Your task to perform on an android device: Go to network settings Image 0: 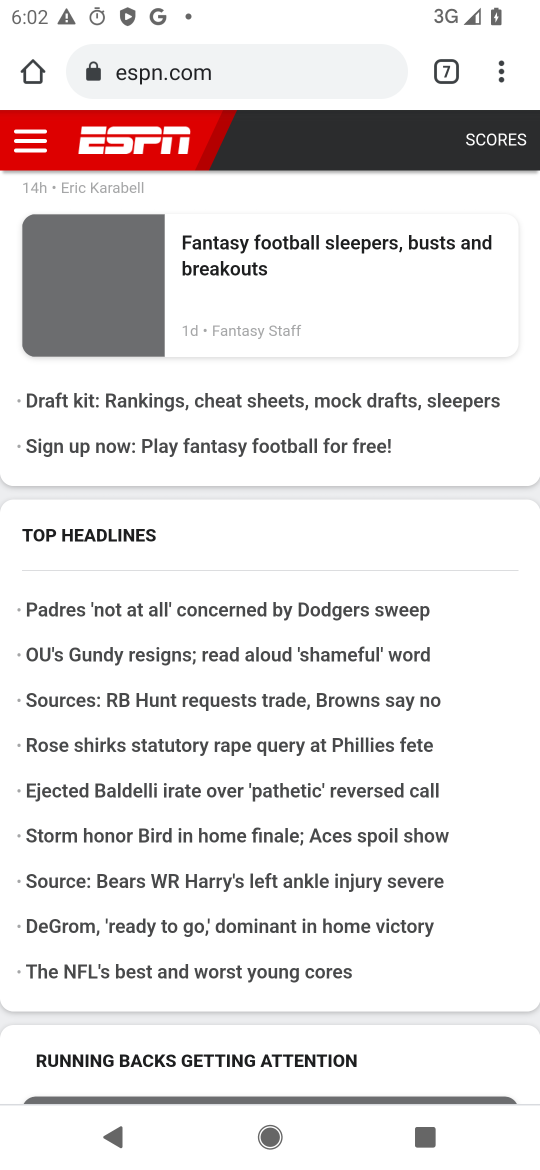
Step 0: press home button
Your task to perform on an android device: Go to network settings Image 1: 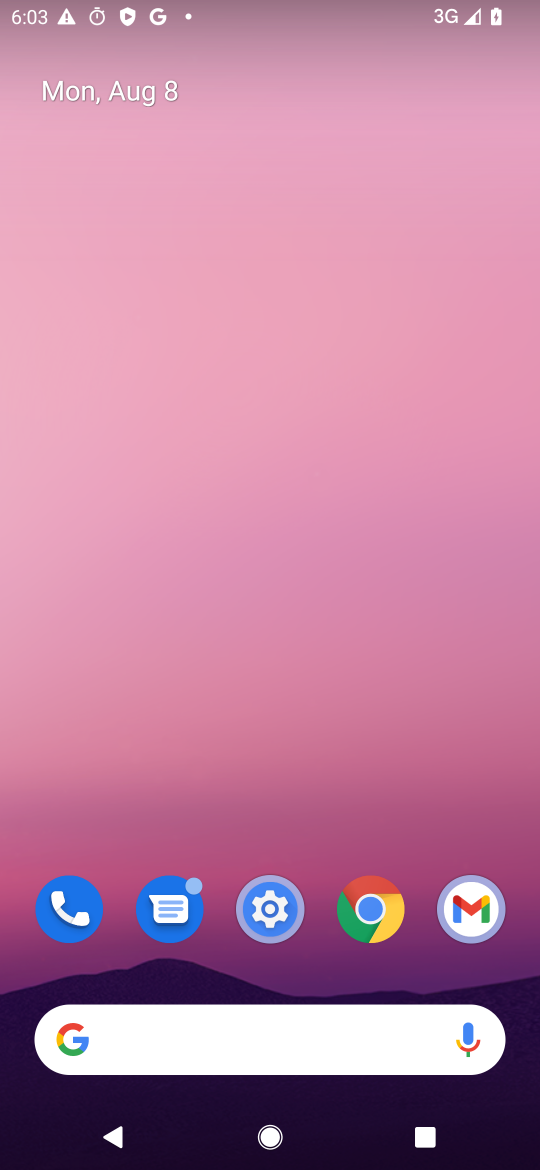
Step 1: click (263, 903)
Your task to perform on an android device: Go to network settings Image 2: 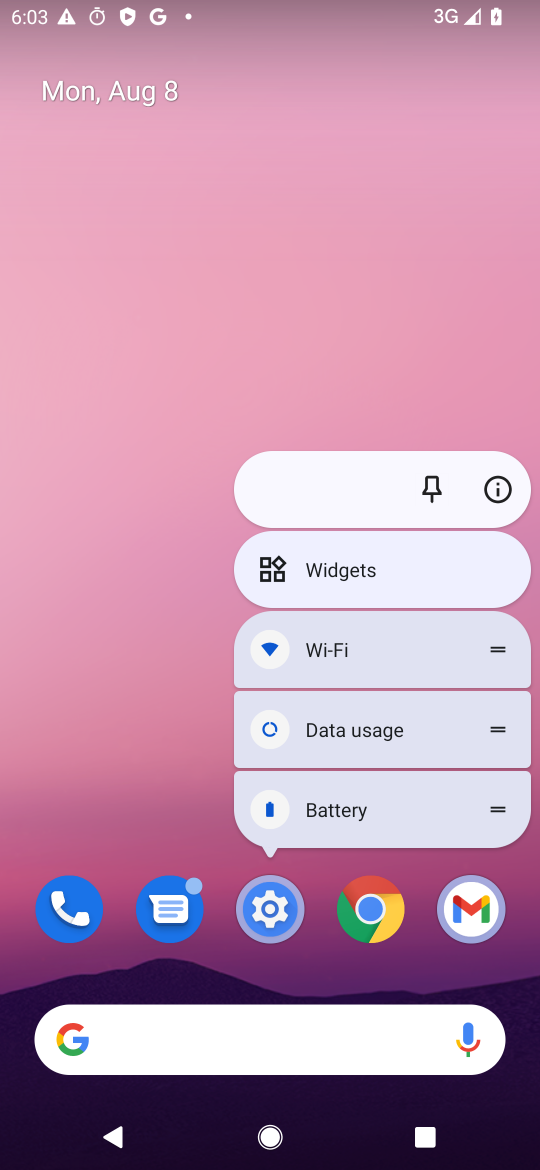
Step 2: click (263, 904)
Your task to perform on an android device: Go to network settings Image 3: 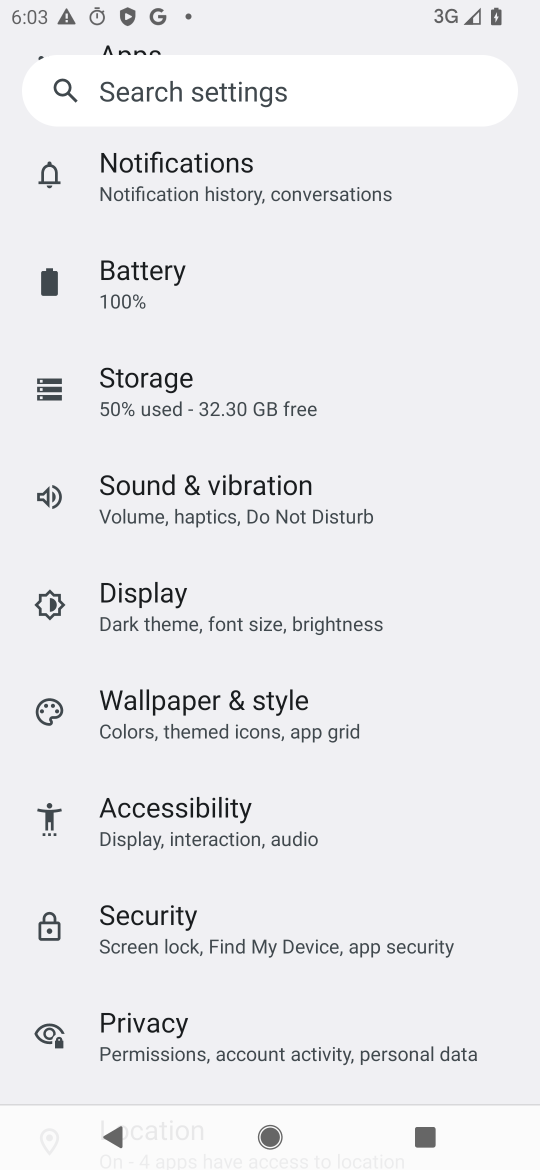
Step 3: drag from (337, 336) to (370, 876)
Your task to perform on an android device: Go to network settings Image 4: 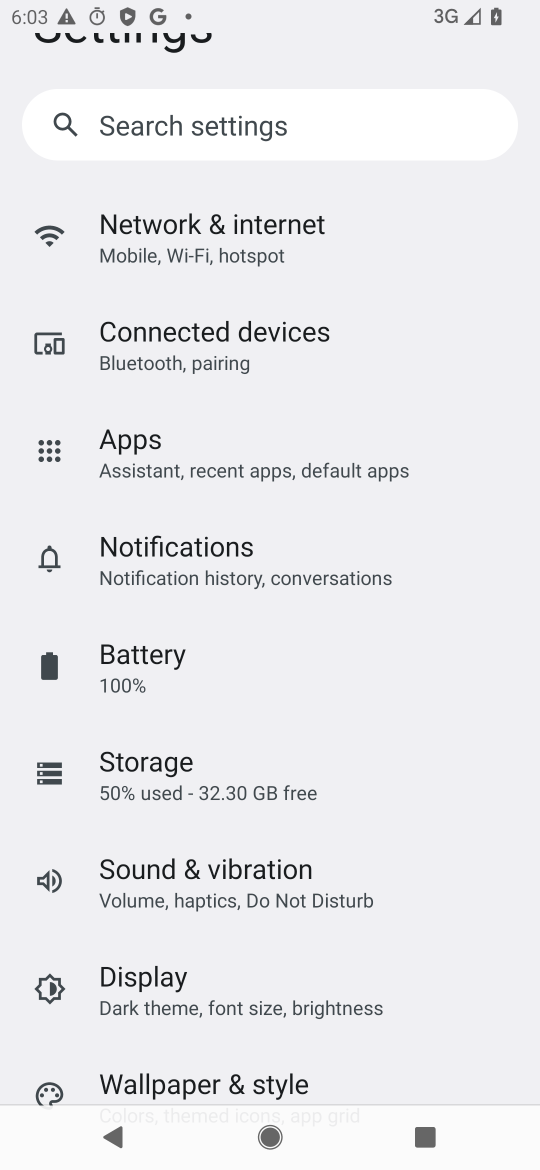
Step 4: click (261, 229)
Your task to perform on an android device: Go to network settings Image 5: 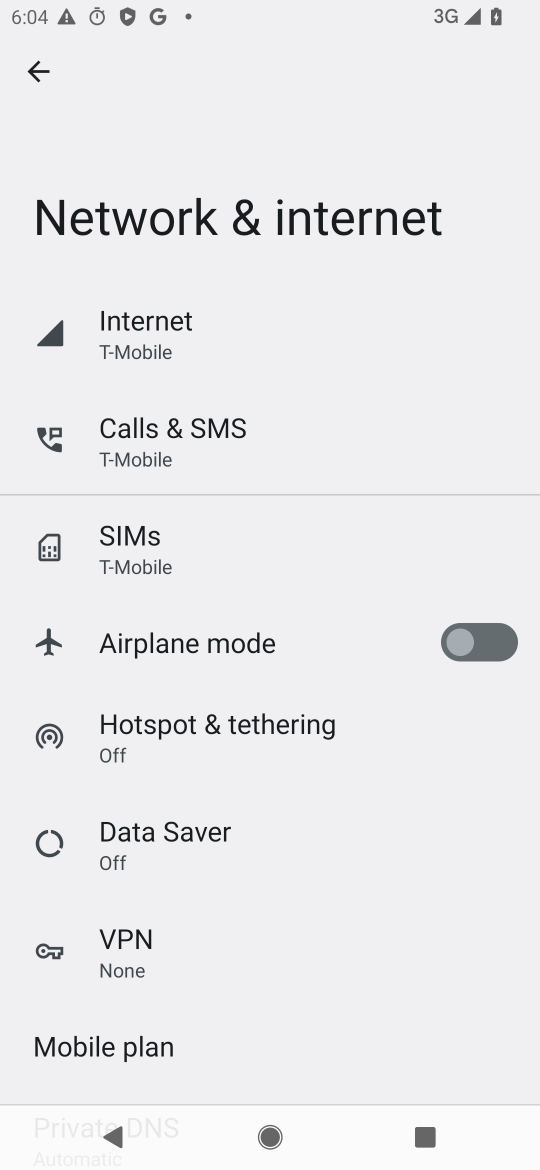
Step 5: task complete